Your task to perform on an android device: Show me recent news Image 0: 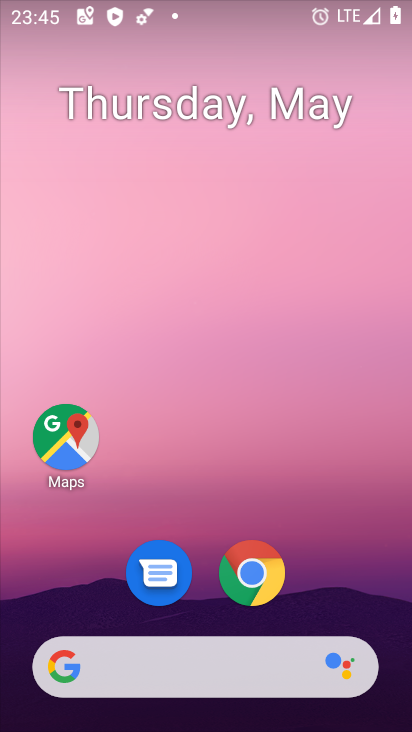
Step 0: drag from (214, 616) to (205, 232)
Your task to perform on an android device: Show me recent news Image 1: 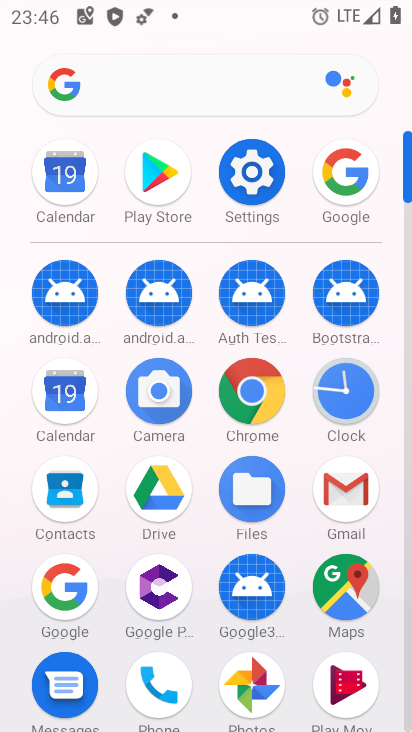
Step 1: click (47, 586)
Your task to perform on an android device: Show me recent news Image 2: 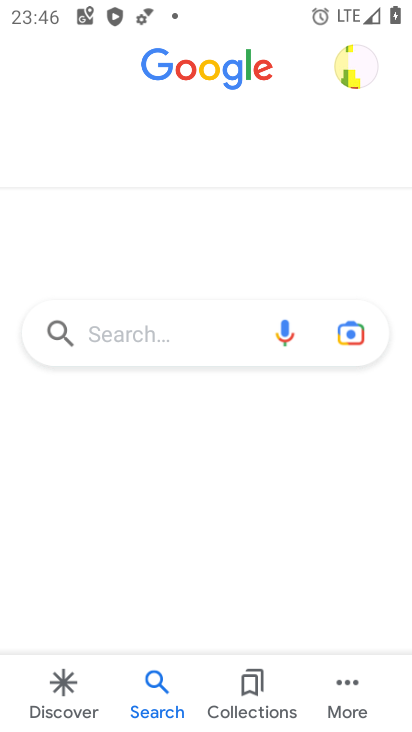
Step 2: click (174, 324)
Your task to perform on an android device: Show me recent news Image 3: 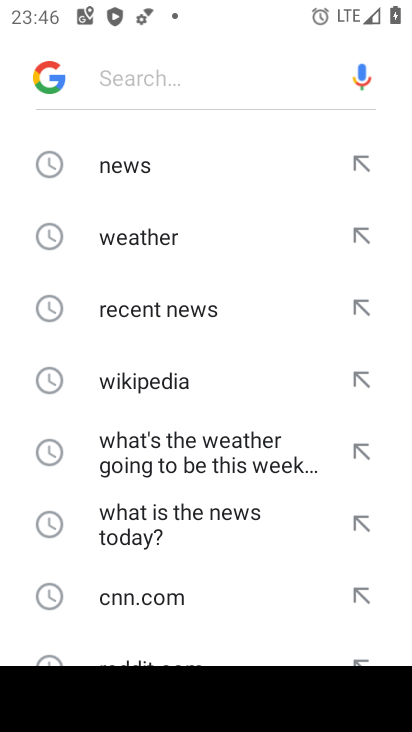
Step 3: click (103, 176)
Your task to perform on an android device: Show me recent news Image 4: 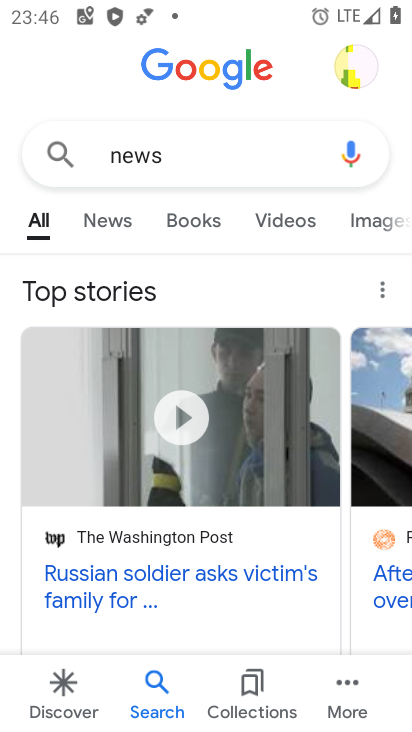
Step 4: click (116, 212)
Your task to perform on an android device: Show me recent news Image 5: 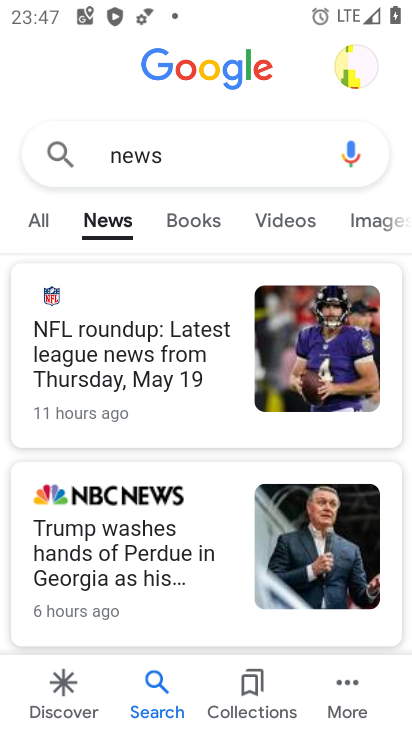
Step 5: task complete